Your task to perform on an android device: see tabs open on other devices in the chrome app Image 0: 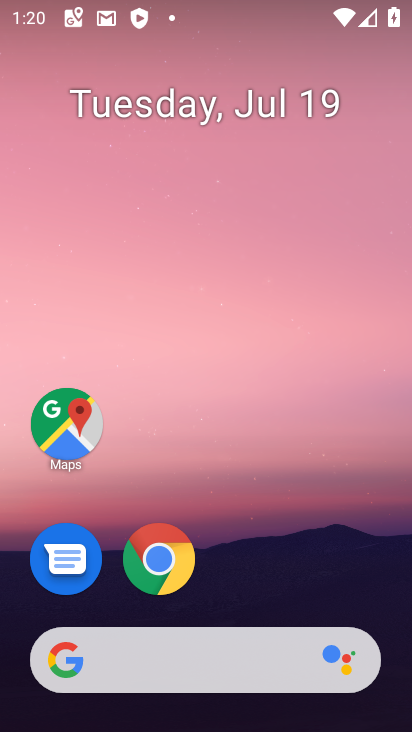
Step 0: click (154, 566)
Your task to perform on an android device: see tabs open on other devices in the chrome app Image 1: 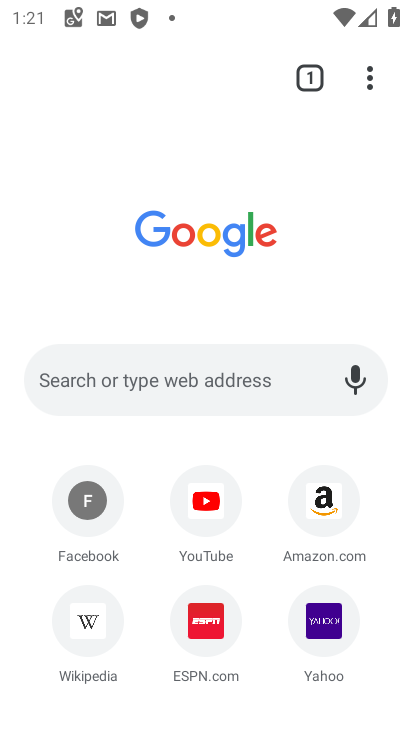
Step 1: task complete